Your task to perform on an android device: turn on improve location accuracy Image 0: 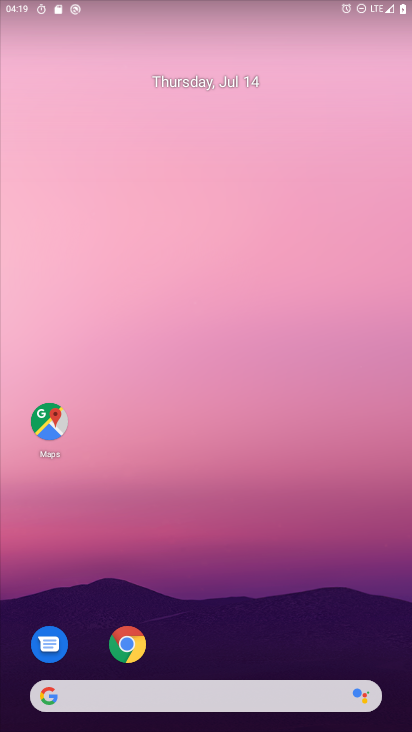
Step 0: drag from (220, 249) to (216, 23)
Your task to perform on an android device: turn on improve location accuracy Image 1: 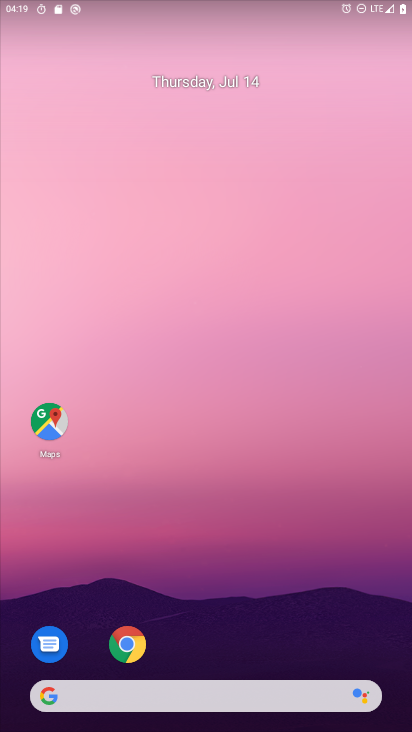
Step 1: drag from (311, 604) to (184, 29)
Your task to perform on an android device: turn on improve location accuracy Image 2: 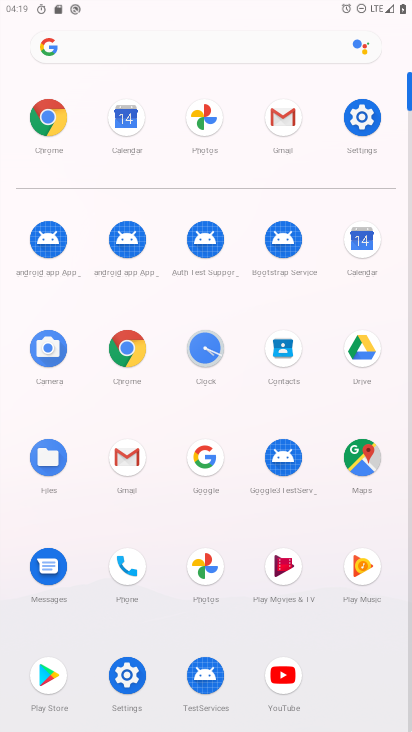
Step 2: click (360, 113)
Your task to perform on an android device: turn on improve location accuracy Image 3: 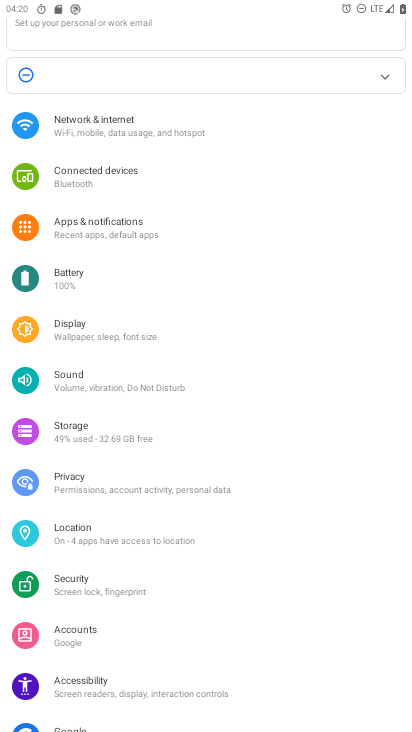
Step 3: click (131, 531)
Your task to perform on an android device: turn on improve location accuracy Image 4: 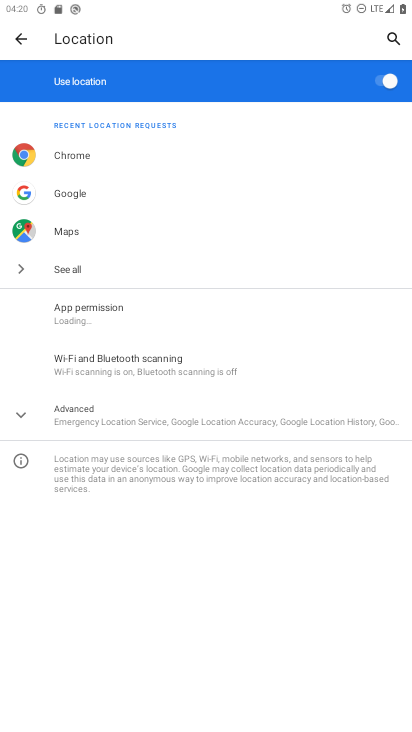
Step 4: click (97, 415)
Your task to perform on an android device: turn on improve location accuracy Image 5: 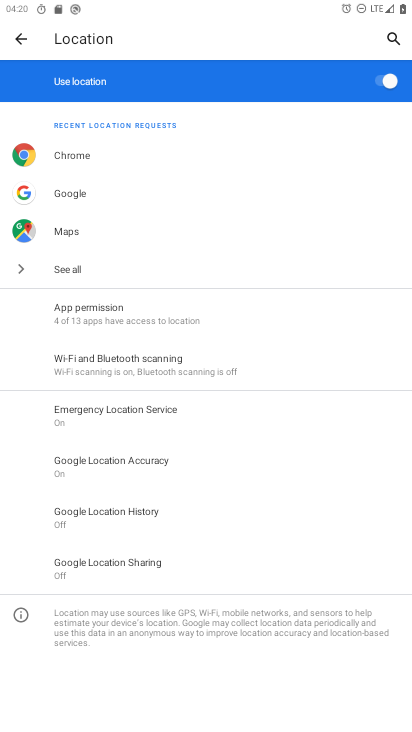
Step 5: click (145, 466)
Your task to perform on an android device: turn on improve location accuracy Image 6: 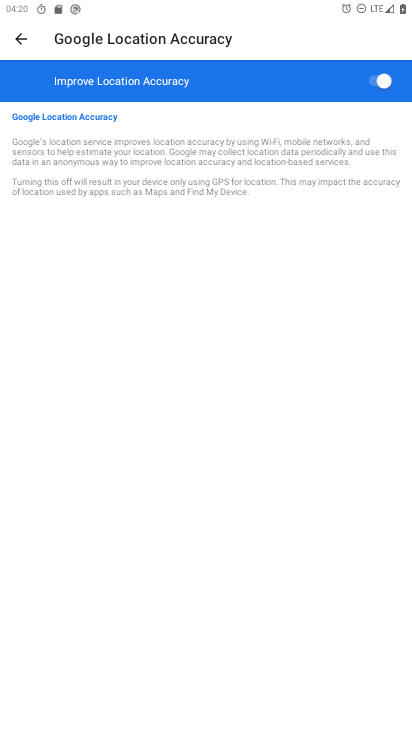
Step 6: task complete